Your task to perform on an android device: Open my contact list Image 0: 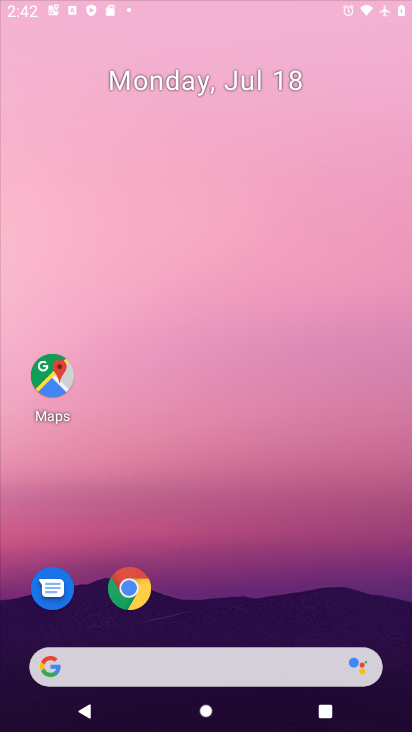
Step 0: click (397, 136)
Your task to perform on an android device: Open my contact list Image 1: 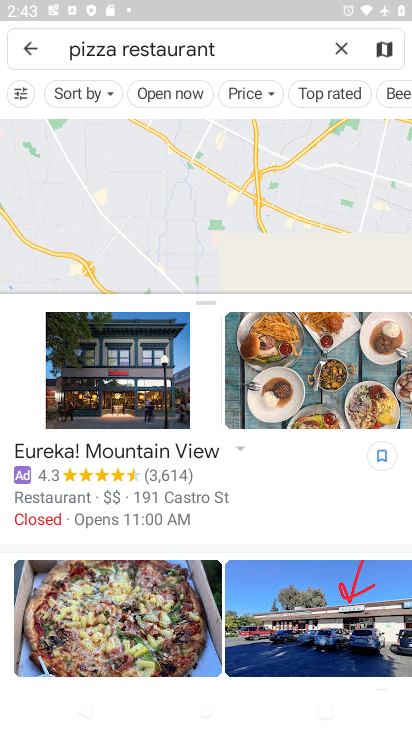
Step 1: press home button
Your task to perform on an android device: Open my contact list Image 2: 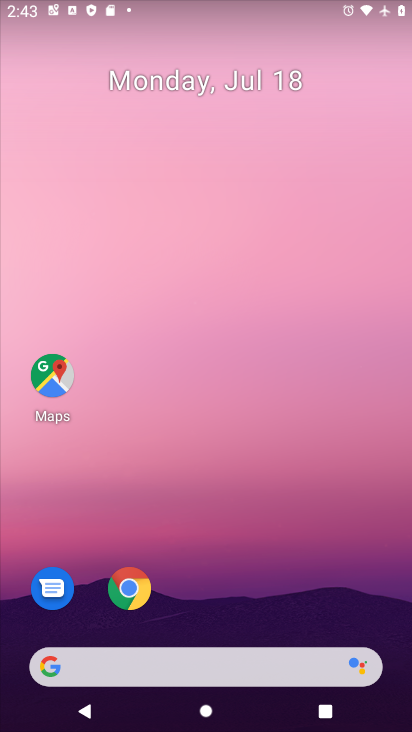
Step 2: drag from (234, 596) to (360, 140)
Your task to perform on an android device: Open my contact list Image 3: 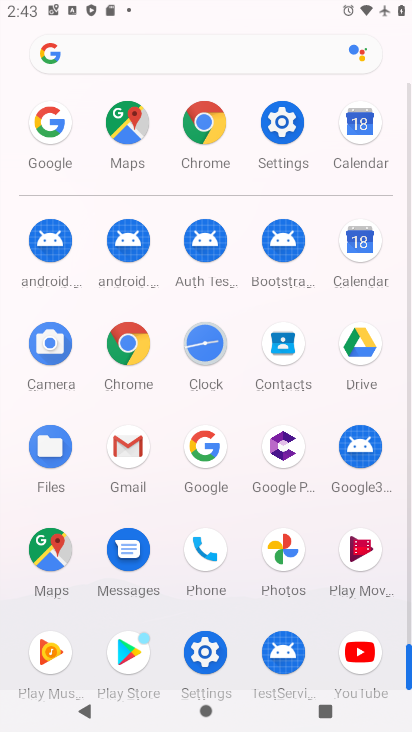
Step 3: click (282, 352)
Your task to perform on an android device: Open my contact list Image 4: 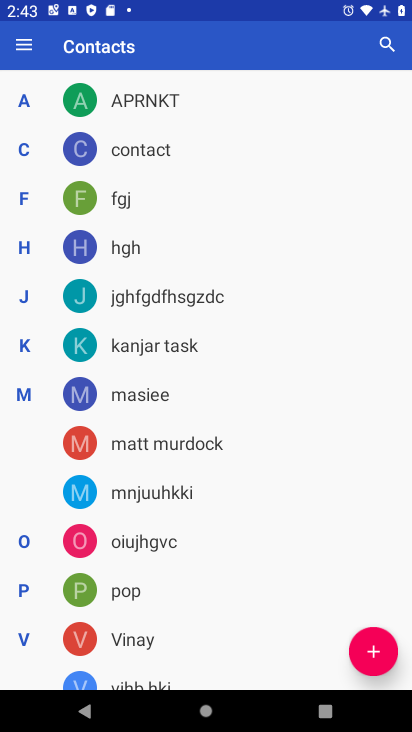
Step 4: task complete